Your task to perform on an android device: Turn on the flashlight Image 0: 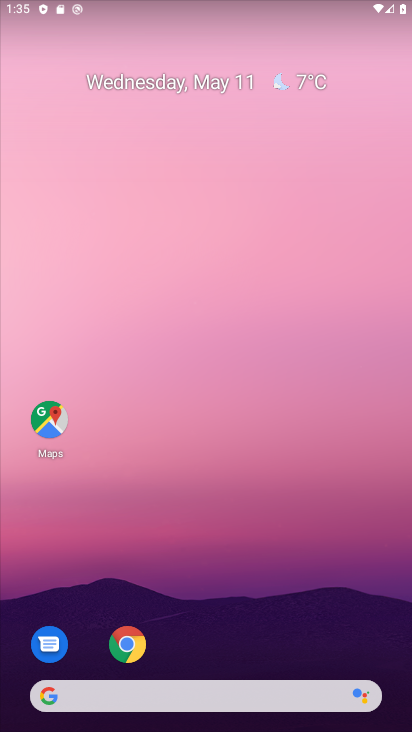
Step 0: drag from (111, 14) to (158, 437)
Your task to perform on an android device: Turn on the flashlight Image 1: 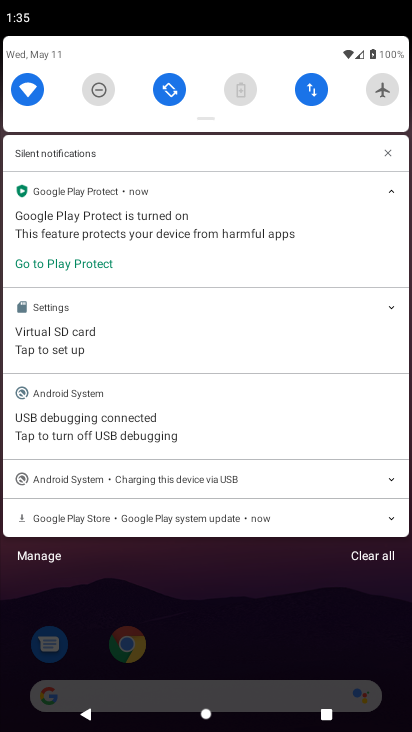
Step 1: drag from (223, 110) to (199, 535)
Your task to perform on an android device: Turn on the flashlight Image 2: 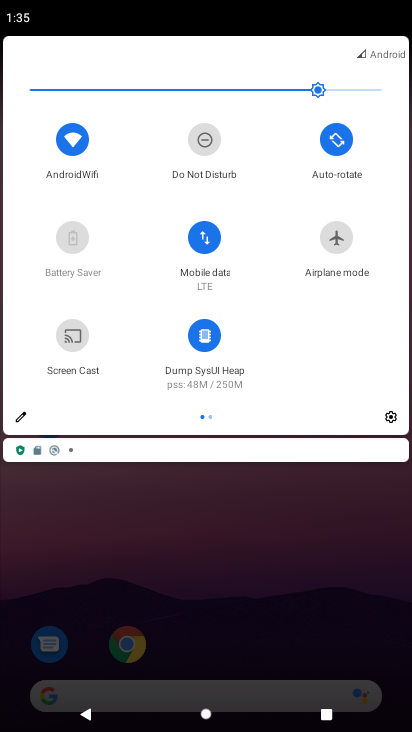
Step 2: click (23, 411)
Your task to perform on an android device: Turn on the flashlight Image 3: 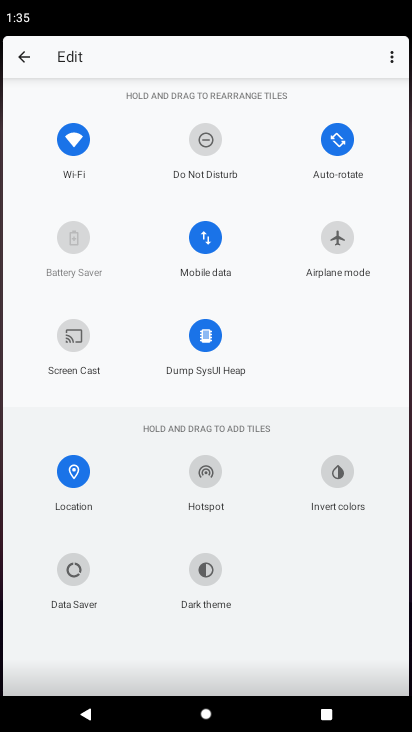
Step 3: task complete